Your task to perform on an android device: toggle priority inbox in the gmail app Image 0: 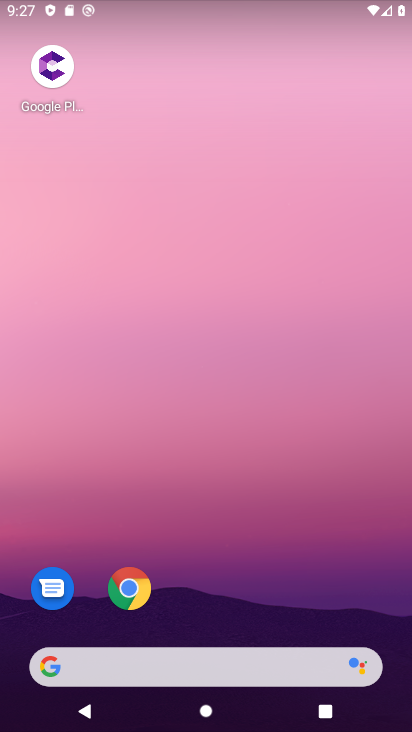
Step 0: drag from (210, 574) to (236, 7)
Your task to perform on an android device: toggle priority inbox in the gmail app Image 1: 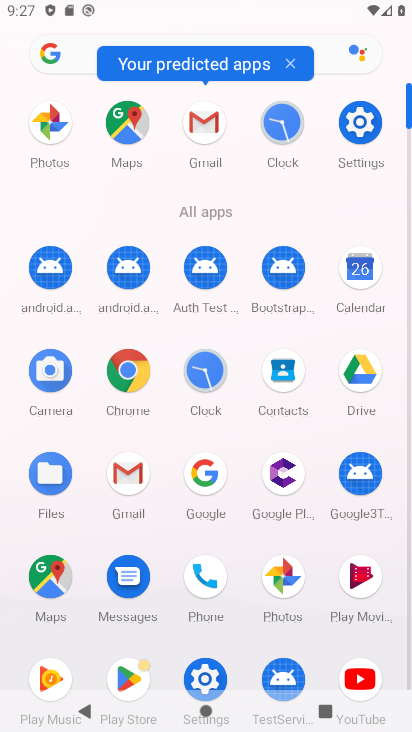
Step 1: click (205, 120)
Your task to perform on an android device: toggle priority inbox in the gmail app Image 2: 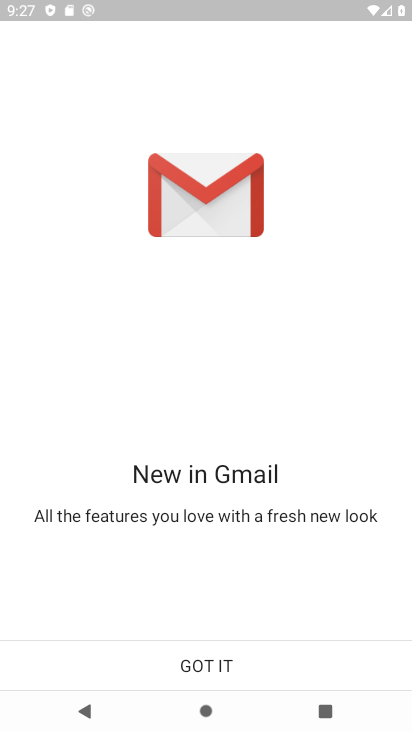
Step 2: click (194, 655)
Your task to perform on an android device: toggle priority inbox in the gmail app Image 3: 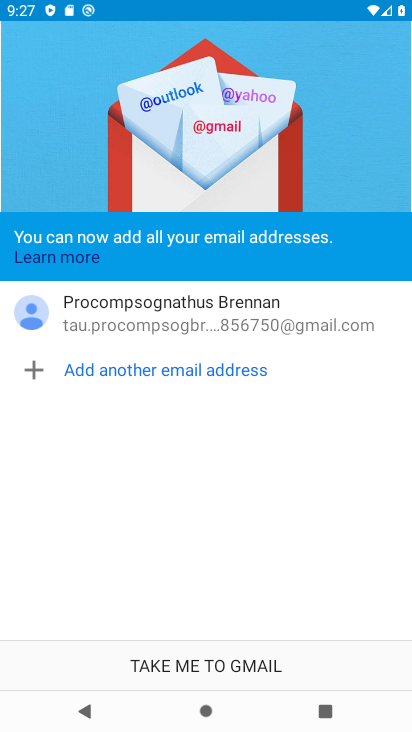
Step 3: click (198, 660)
Your task to perform on an android device: toggle priority inbox in the gmail app Image 4: 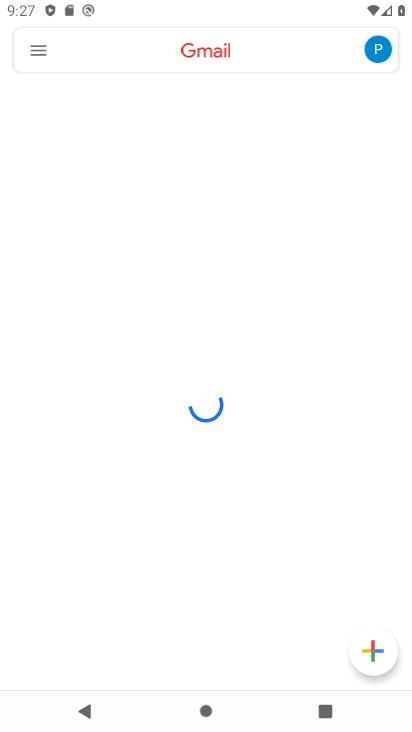
Step 4: click (40, 56)
Your task to perform on an android device: toggle priority inbox in the gmail app Image 5: 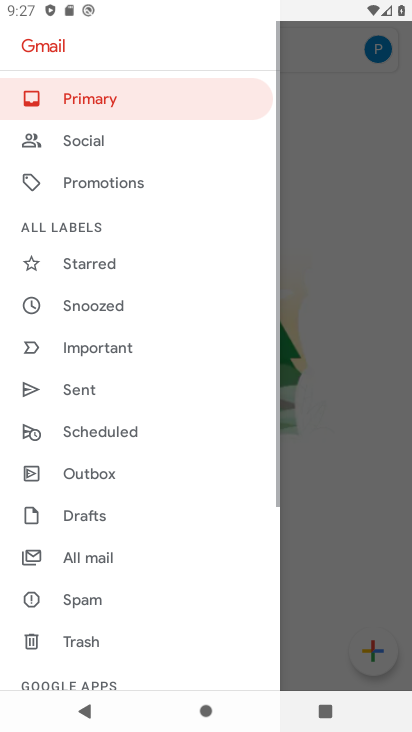
Step 5: click (91, 220)
Your task to perform on an android device: toggle priority inbox in the gmail app Image 6: 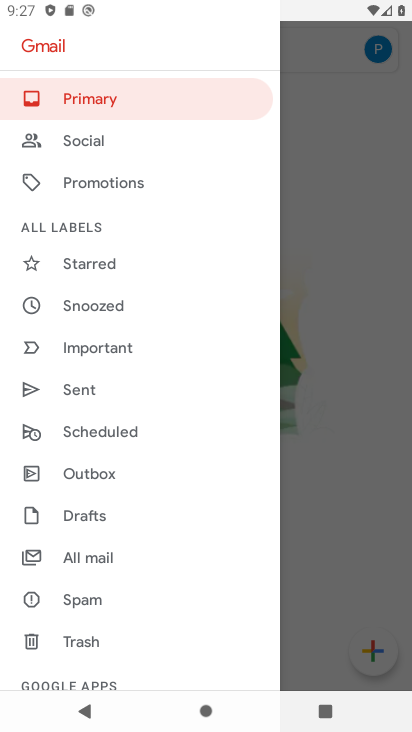
Step 6: drag from (121, 602) to (216, 84)
Your task to perform on an android device: toggle priority inbox in the gmail app Image 7: 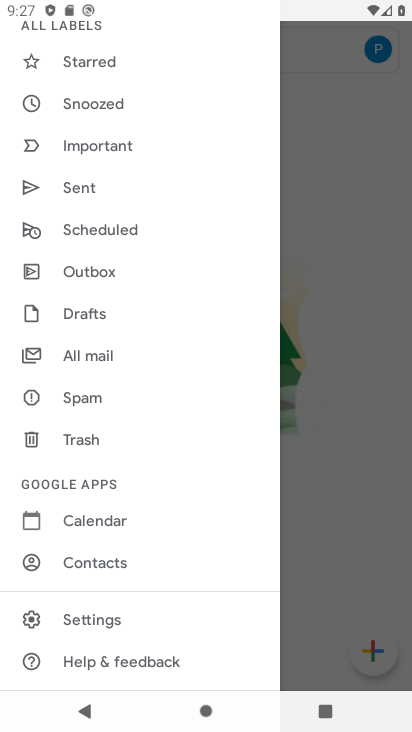
Step 7: click (93, 623)
Your task to perform on an android device: toggle priority inbox in the gmail app Image 8: 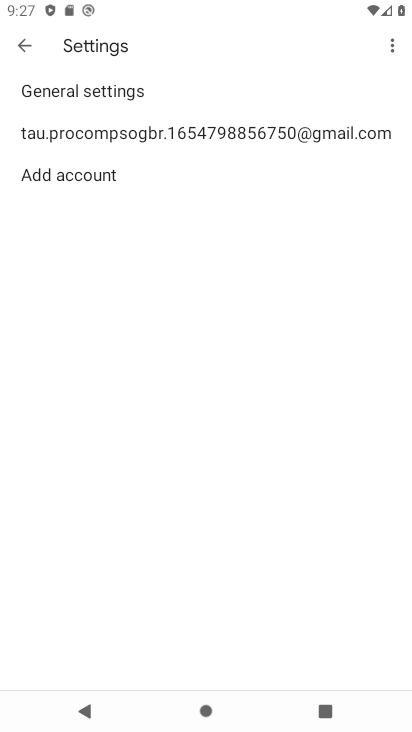
Step 8: click (93, 133)
Your task to perform on an android device: toggle priority inbox in the gmail app Image 9: 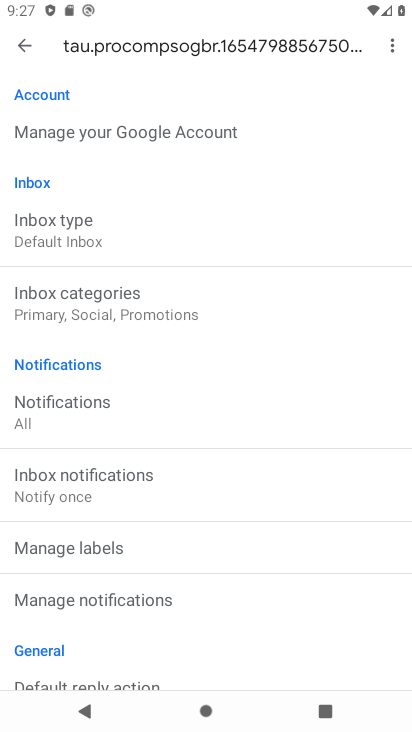
Step 9: click (88, 234)
Your task to perform on an android device: toggle priority inbox in the gmail app Image 10: 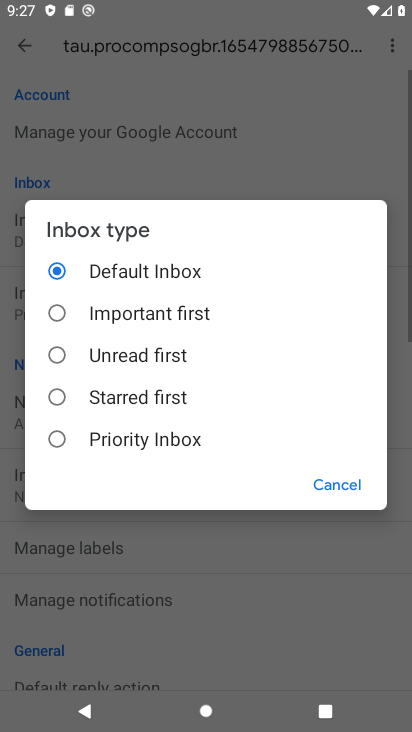
Step 10: click (85, 443)
Your task to perform on an android device: toggle priority inbox in the gmail app Image 11: 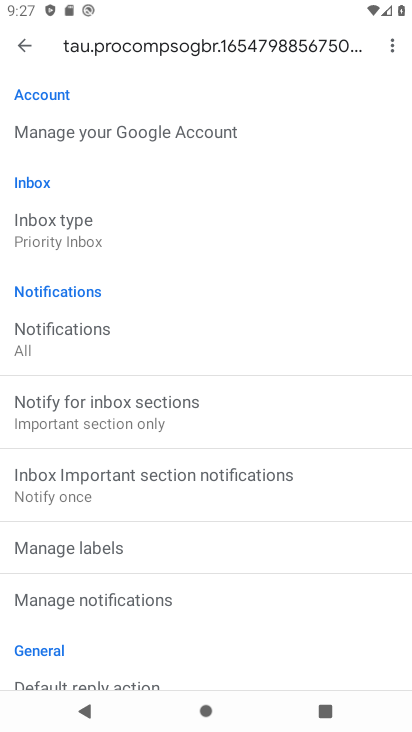
Step 11: task complete